Your task to perform on an android device: open app "Google Docs" (install if not already installed) Image 0: 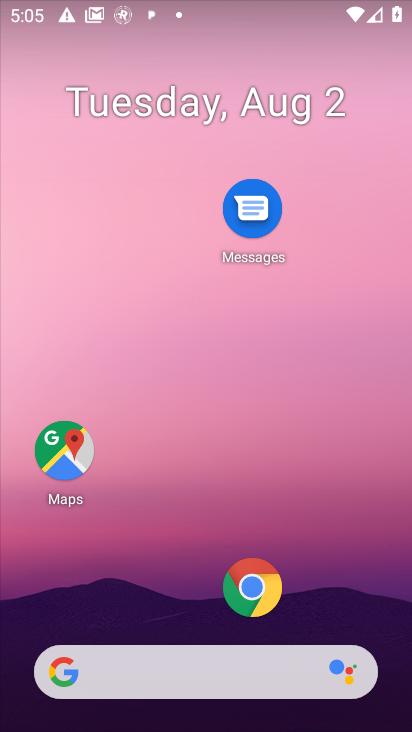
Step 0: drag from (172, 586) to (147, 152)
Your task to perform on an android device: open app "Google Docs" (install if not already installed) Image 1: 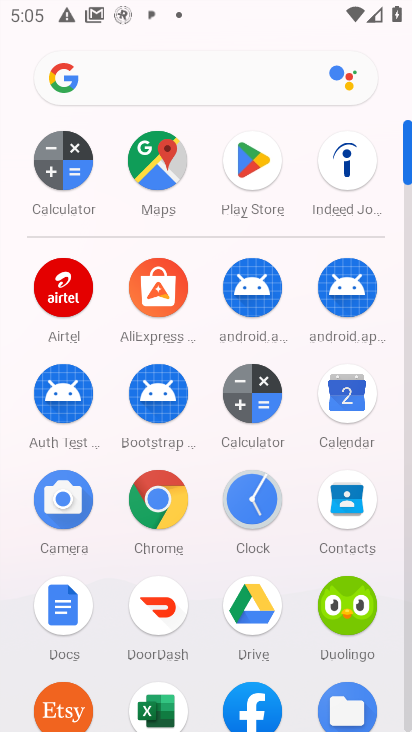
Step 1: click (228, 159)
Your task to perform on an android device: open app "Google Docs" (install if not already installed) Image 2: 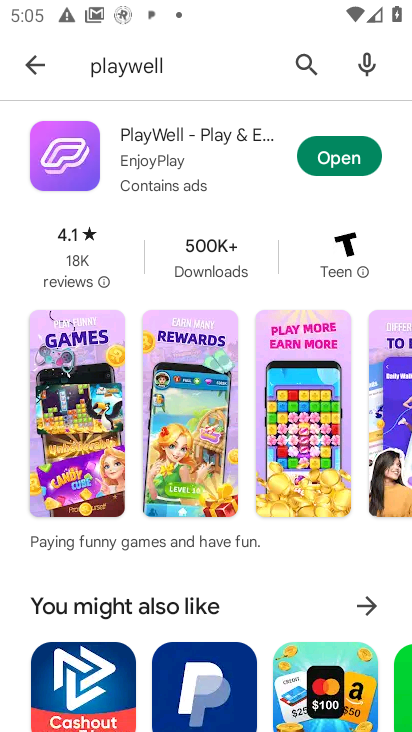
Step 2: click (314, 66)
Your task to perform on an android device: open app "Google Docs" (install if not already installed) Image 3: 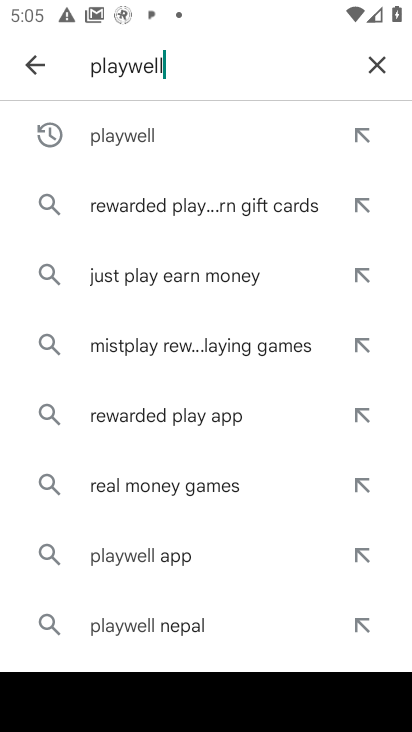
Step 3: click (375, 63)
Your task to perform on an android device: open app "Google Docs" (install if not already installed) Image 4: 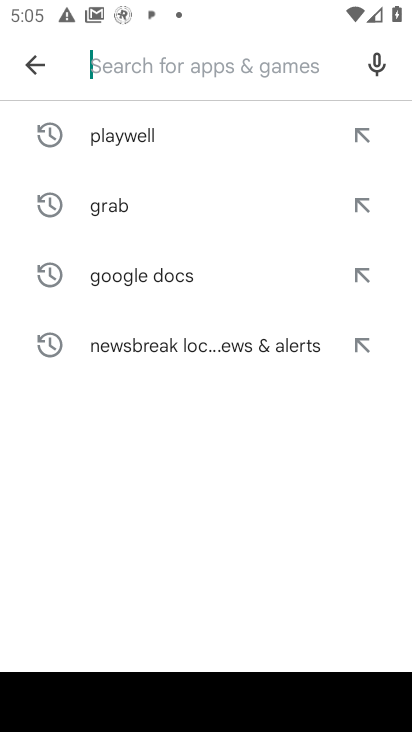
Step 4: type "Google Docs"
Your task to perform on an android device: open app "Google Docs" (install if not already installed) Image 5: 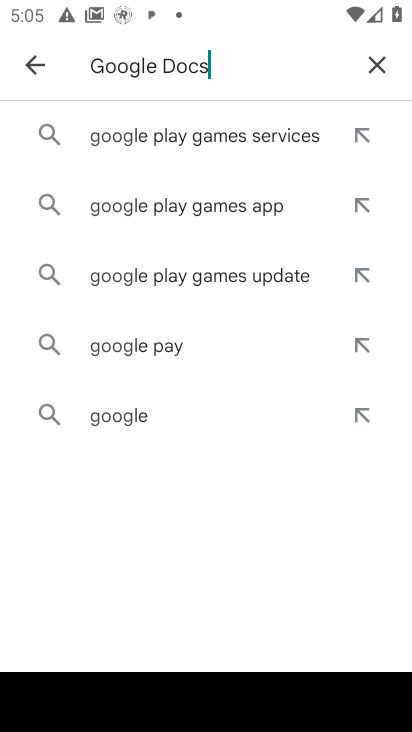
Step 5: type ""
Your task to perform on an android device: open app "Google Docs" (install if not already installed) Image 6: 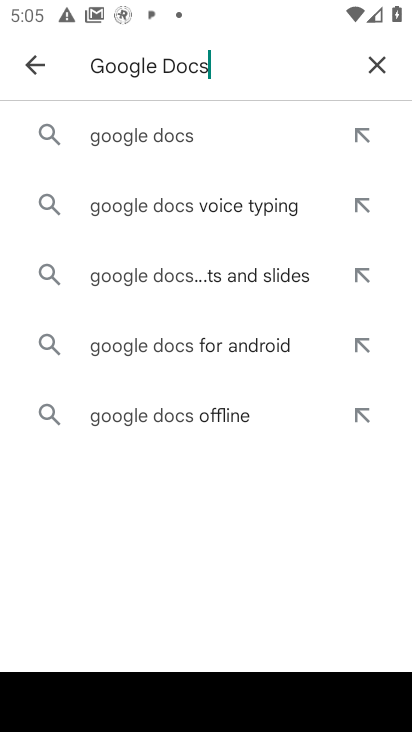
Step 6: click (194, 140)
Your task to perform on an android device: open app "Google Docs" (install if not already installed) Image 7: 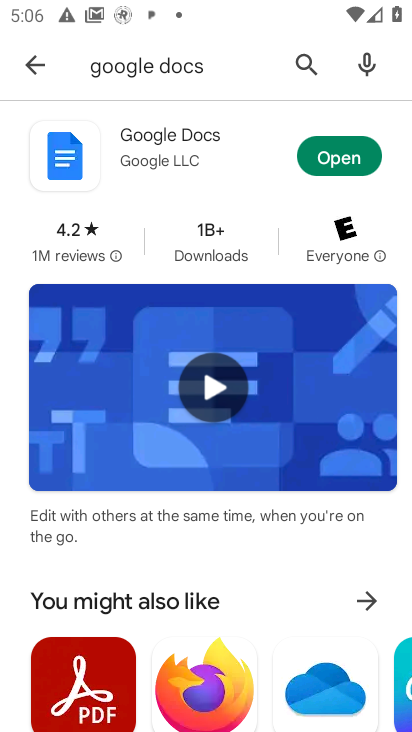
Step 7: click (355, 150)
Your task to perform on an android device: open app "Google Docs" (install if not already installed) Image 8: 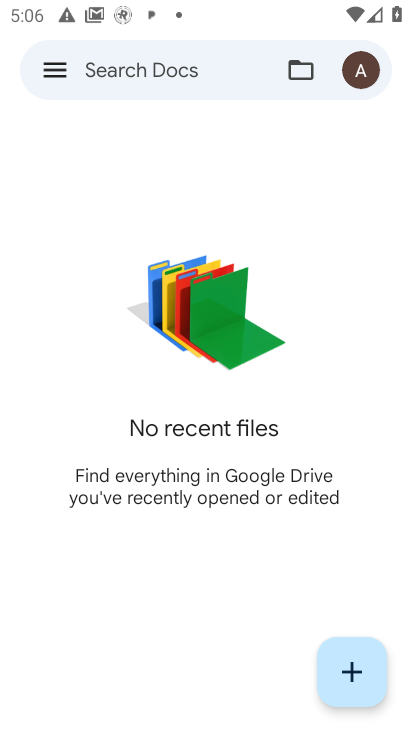
Step 8: task complete